Your task to perform on an android device: toggle notifications settings in the gmail app Image 0: 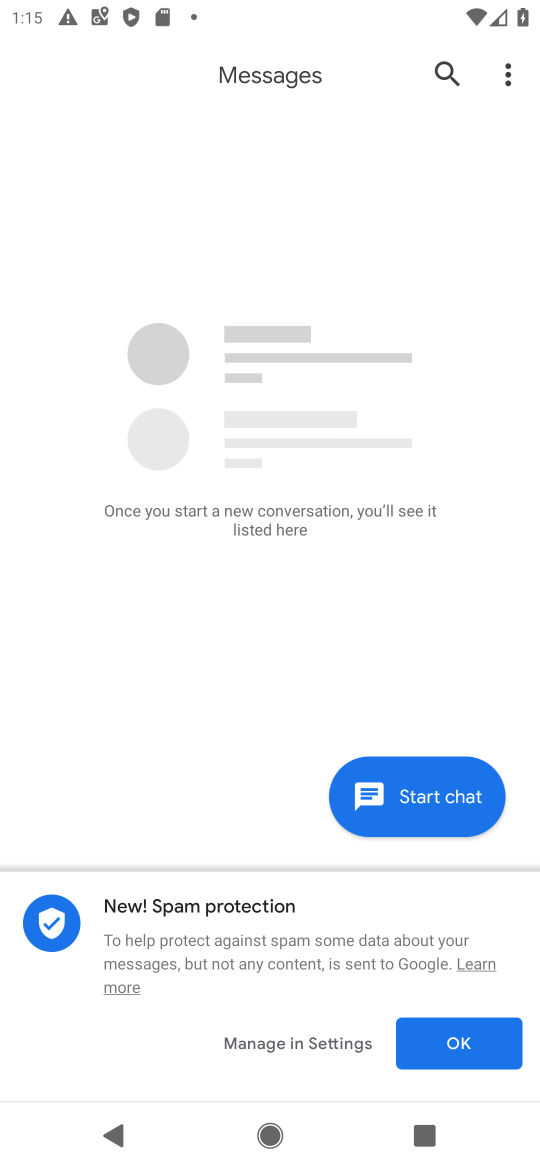
Step 0: press back button
Your task to perform on an android device: toggle notifications settings in the gmail app Image 1: 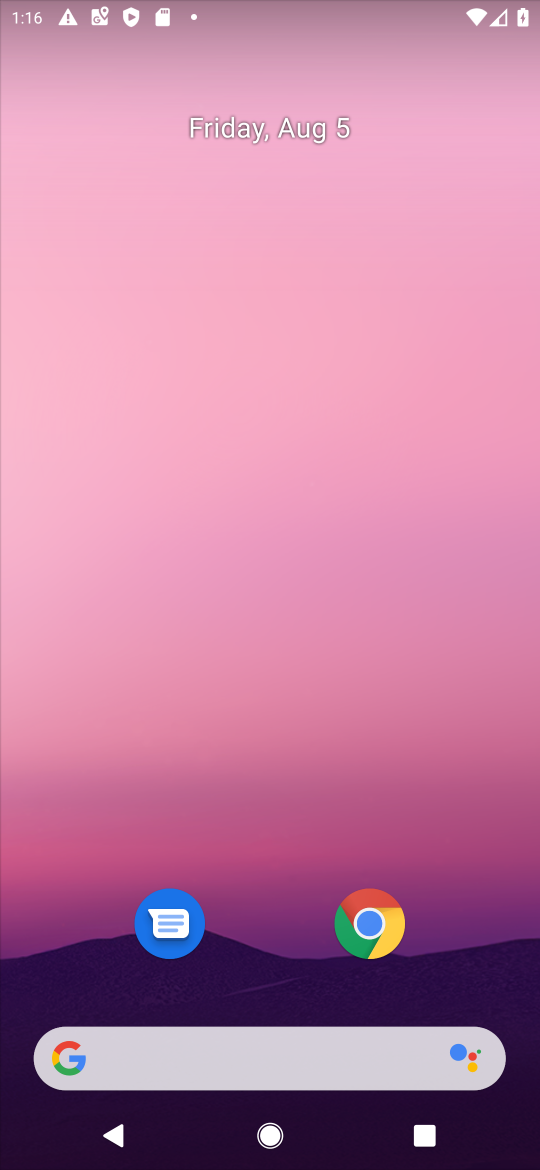
Step 1: drag from (212, 2) to (153, 661)
Your task to perform on an android device: toggle notifications settings in the gmail app Image 2: 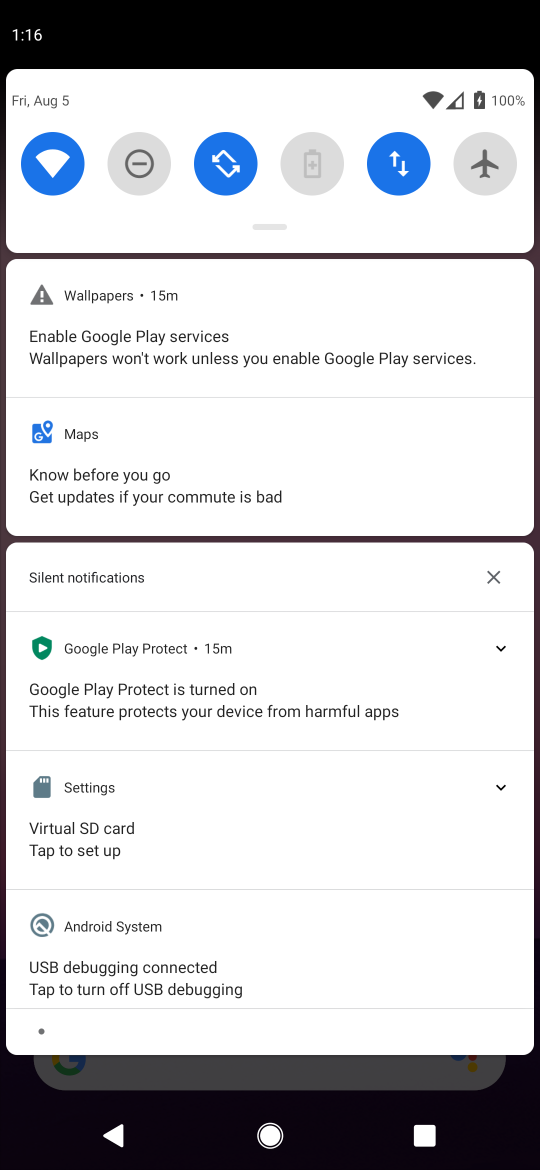
Step 2: click (146, 177)
Your task to perform on an android device: toggle notifications settings in the gmail app Image 3: 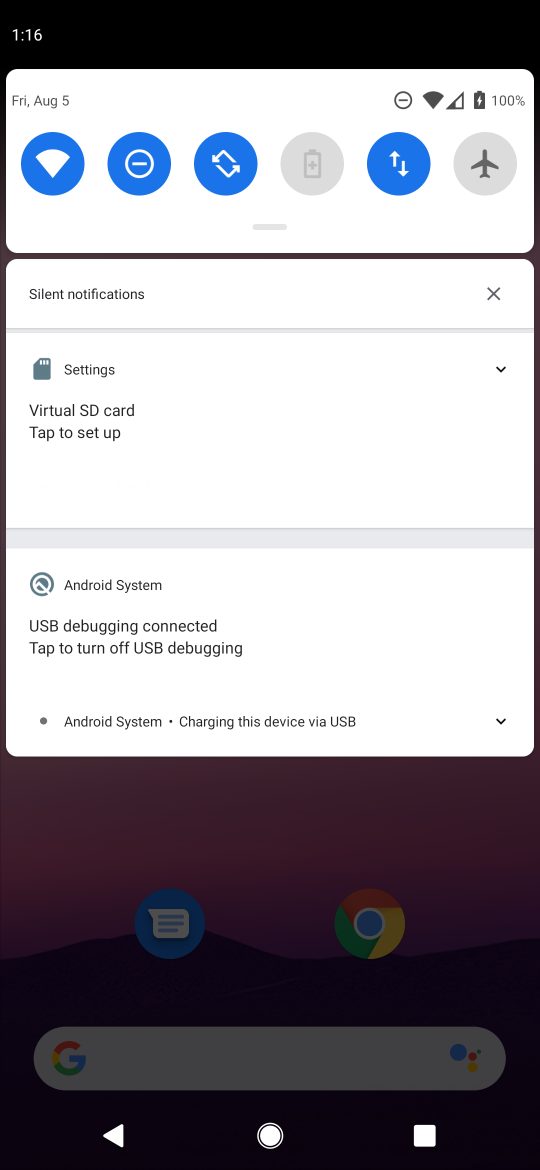
Step 3: task complete